Your task to perform on an android device: turn off improve location accuracy Image 0: 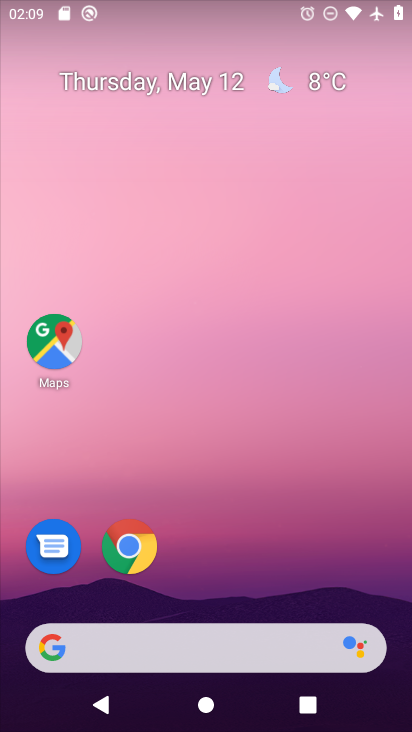
Step 0: drag from (210, 647) to (263, 233)
Your task to perform on an android device: turn off improve location accuracy Image 1: 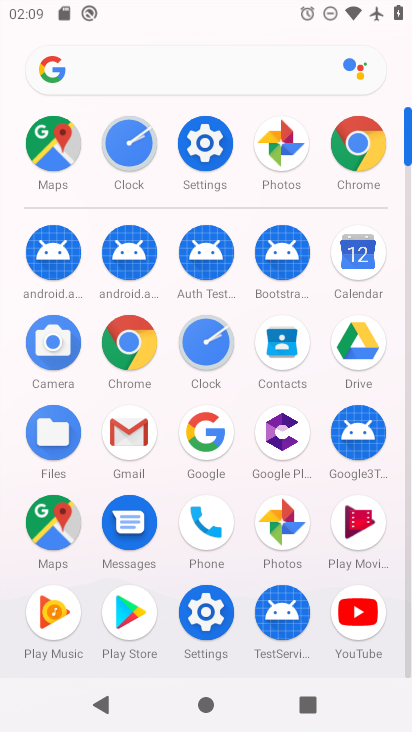
Step 1: click (208, 150)
Your task to perform on an android device: turn off improve location accuracy Image 2: 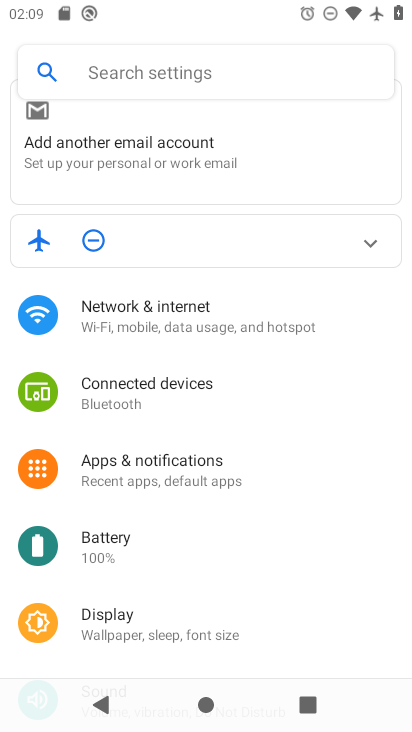
Step 2: drag from (226, 546) to (282, 254)
Your task to perform on an android device: turn off improve location accuracy Image 3: 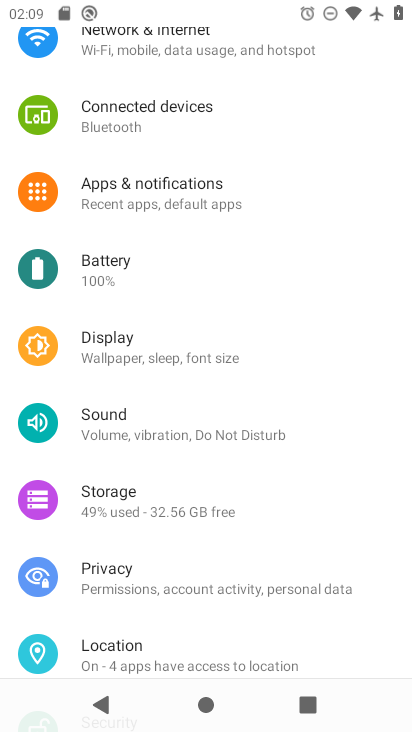
Step 3: click (116, 642)
Your task to perform on an android device: turn off improve location accuracy Image 4: 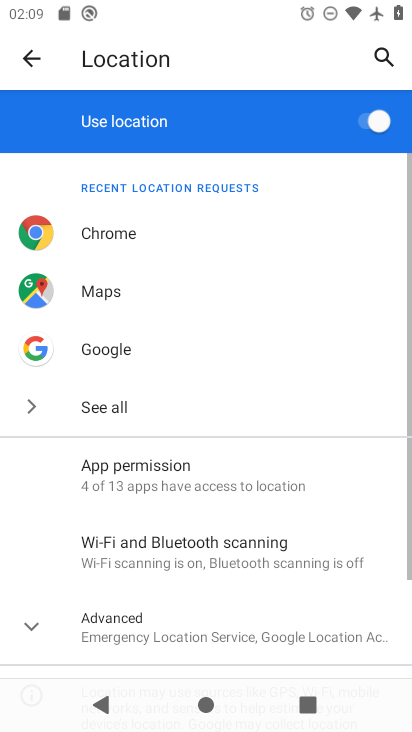
Step 4: drag from (183, 598) to (236, 261)
Your task to perform on an android device: turn off improve location accuracy Image 5: 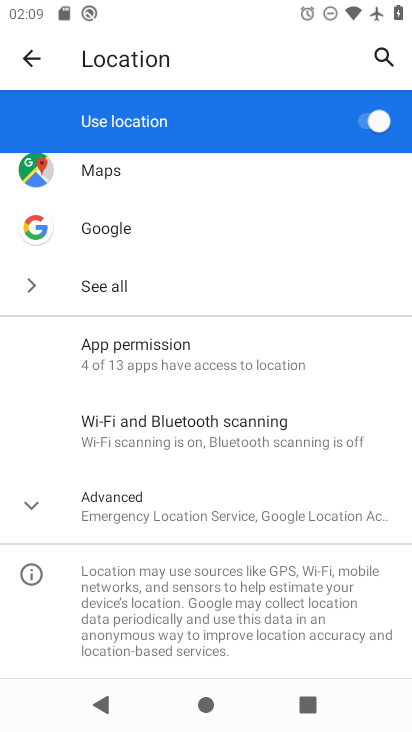
Step 5: click (134, 508)
Your task to perform on an android device: turn off improve location accuracy Image 6: 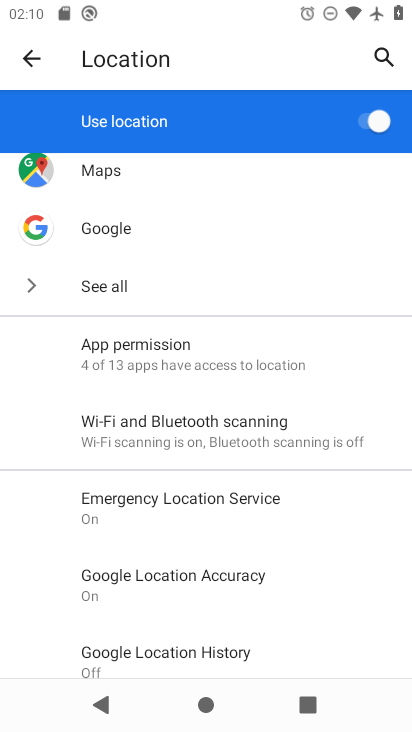
Step 6: drag from (183, 560) to (249, 403)
Your task to perform on an android device: turn off improve location accuracy Image 7: 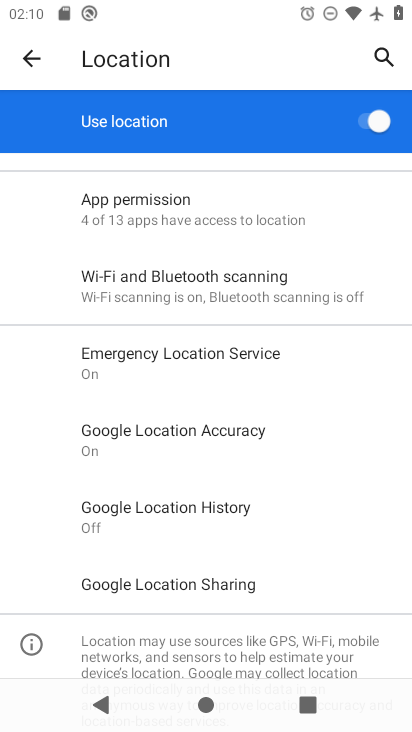
Step 7: click (204, 433)
Your task to perform on an android device: turn off improve location accuracy Image 8: 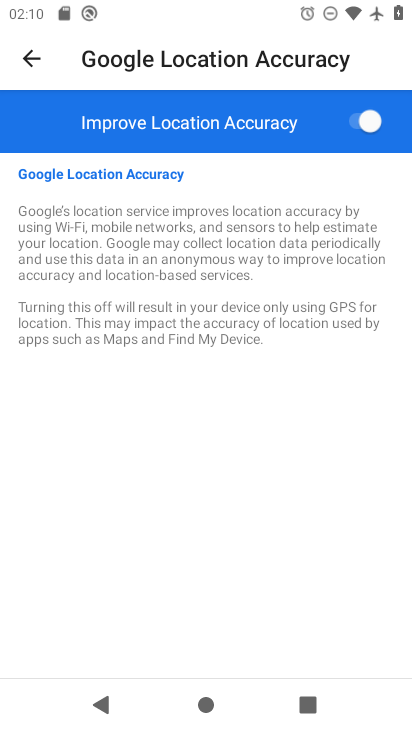
Step 8: click (357, 119)
Your task to perform on an android device: turn off improve location accuracy Image 9: 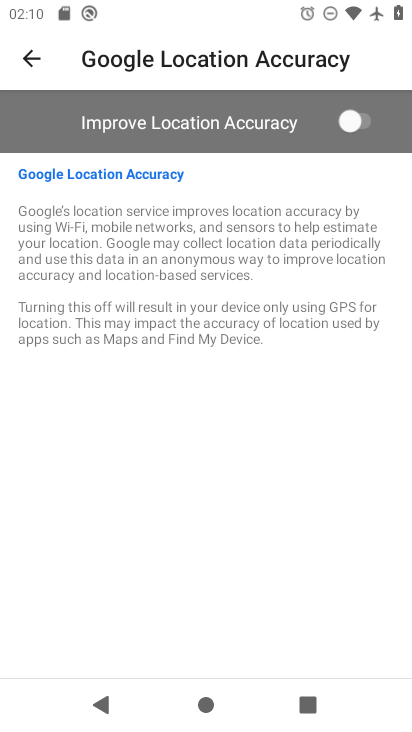
Step 9: task complete